Your task to perform on an android device: search for starred emails in the gmail app Image 0: 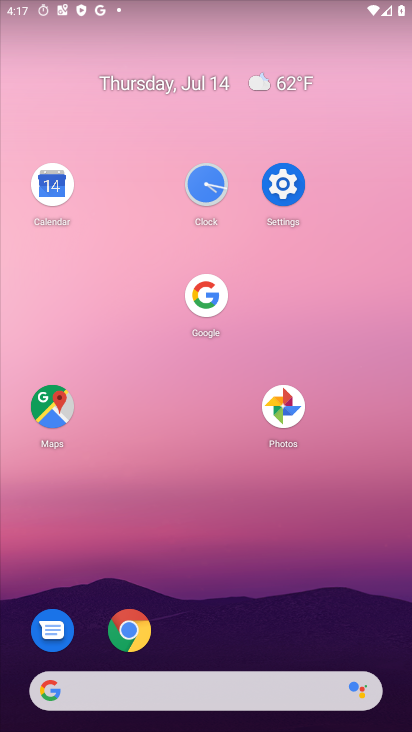
Step 0: drag from (239, 570) to (268, 130)
Your task to perform on an android device: search for starred emails in the gmail app Image 1: 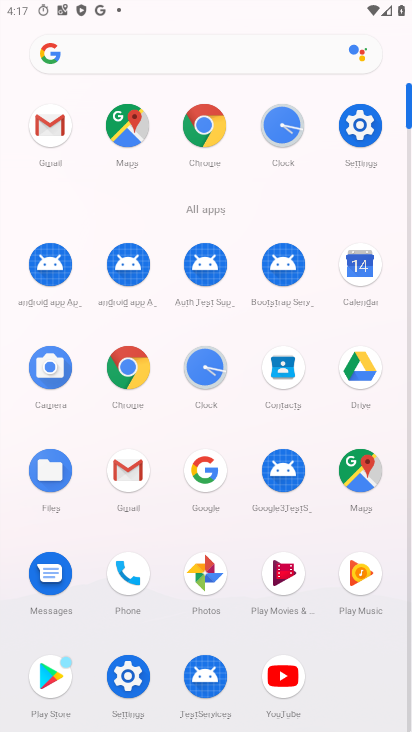
Step 1: drag from (248, 567) to (254, 244)
Your task to perform on an android device: search for starred emails in the gmail app Image 2: 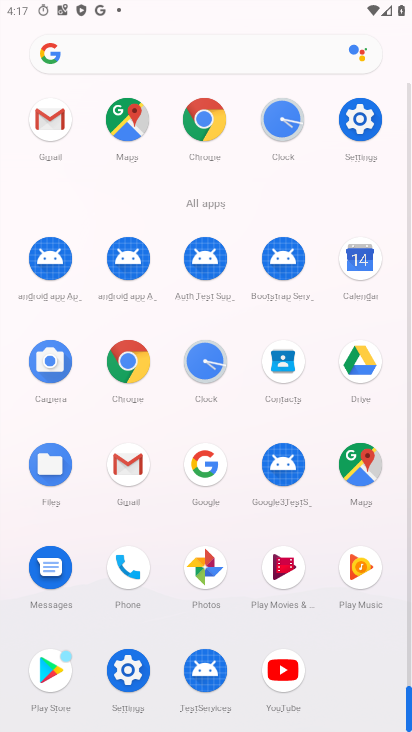
Step 2: drag from (56, 116) to (133, 252)
Your task to perform on an android device: search for starred emails in the gmail app Image 3: 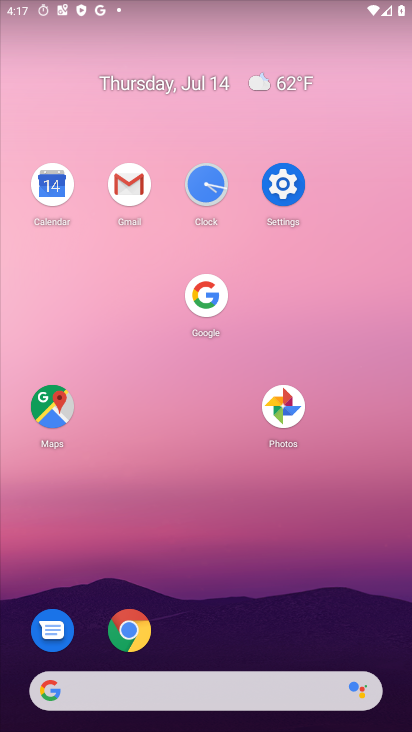
Step 3: click (119, 184)
Your task to perform on an android device: search for starred emails in the gmail app Image 4: 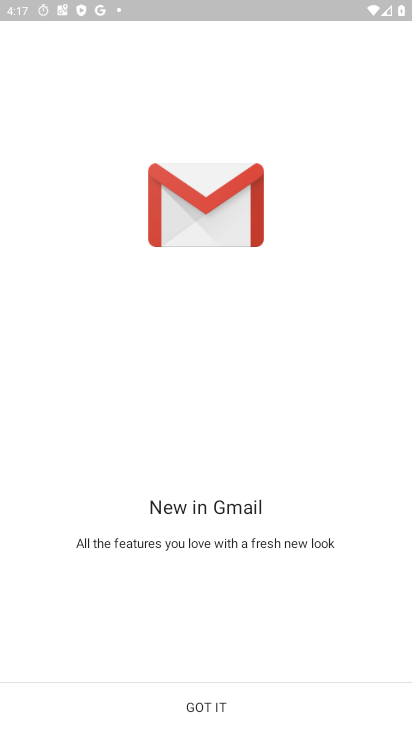
Step 4: click (219, 701)
Your task to perform on an android device: search for starred emails in the gmail app Image 5: 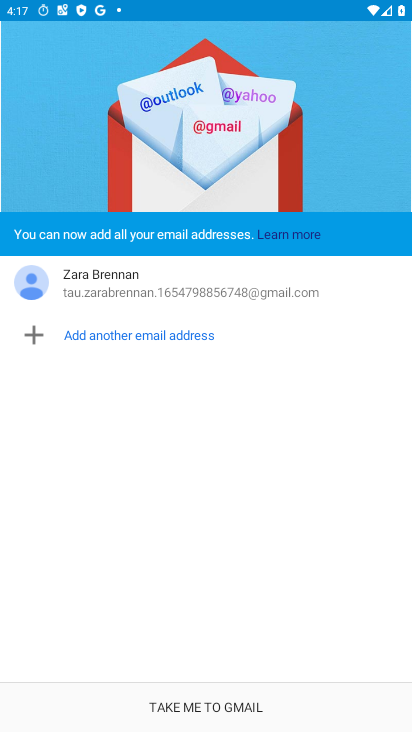
Step 5: click (250, 717)
Your task to perform on an android device: search for starred emails in the gmail app Image 6: 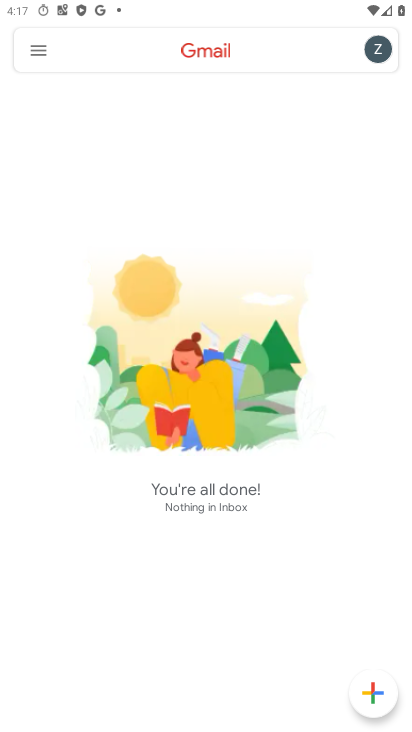
Step 6: click (38, 57)
Your task to perform on an android device: search for starred emails in the gmail app Image 7: 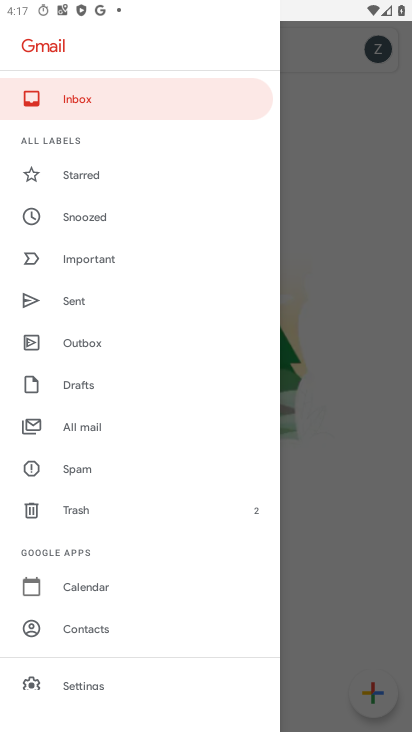
Step 7: click (136, 178)
Your task to perform on an android device: search for starred emails in the gmail app Image 8: 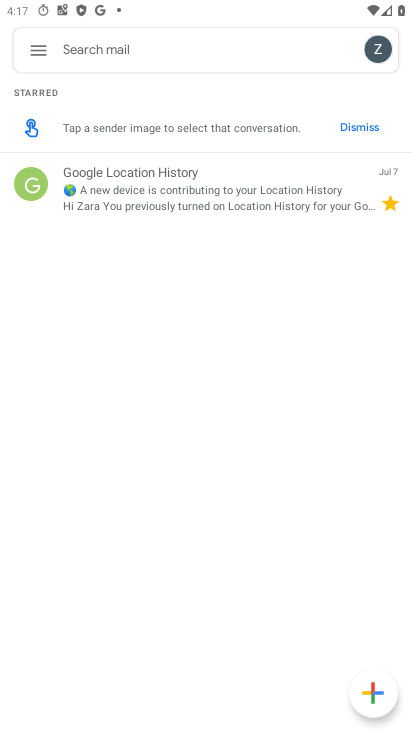
Step 8: task complete